Your task to perform on an android device: Turn on the flashlight Image 0: 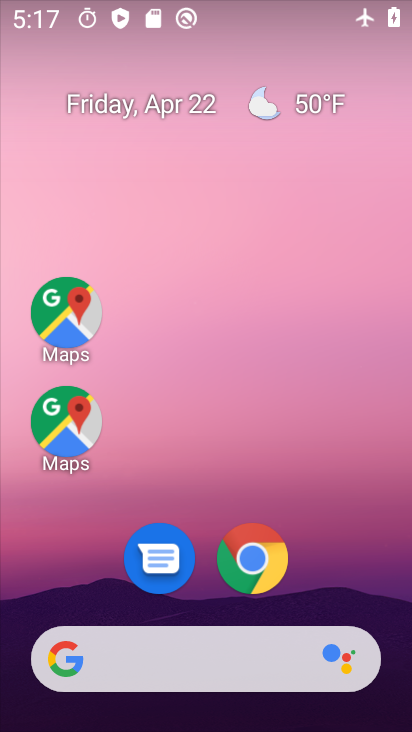
Step 0: drag from (333, 582) to (272, 162)
Your task to perform on an android device: Turn on the flashlight Image 1: 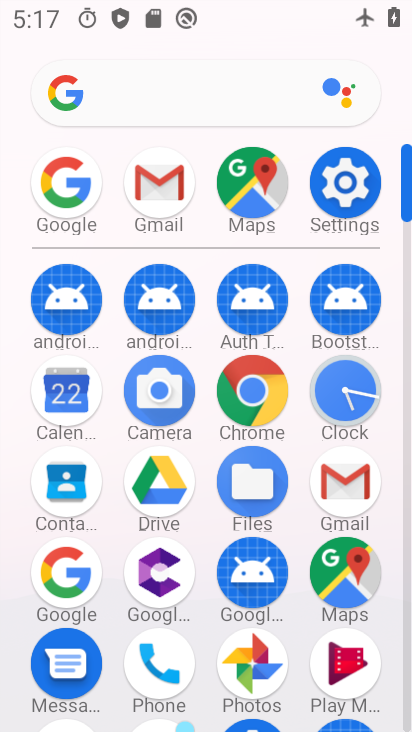
Step 1: drag from (310, 593) to (336, 271)
Your task to perform on an android device: Turn on the flashlight Image 2: 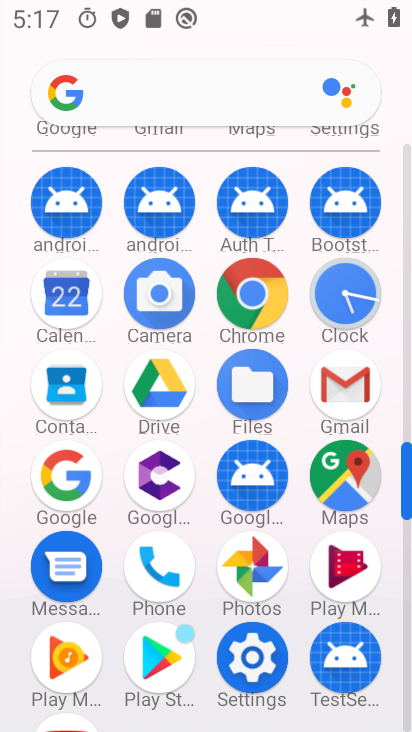
Step 2: click (273, 657)
Your task to perform on an android device: Turn on the flashlight Image 3: 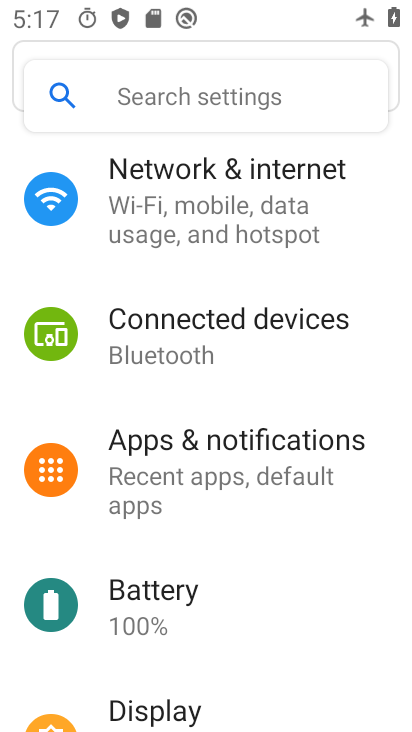
Step 3: task complete